Your task to perform on an android device: uninstall "NewsBreak: Local News & Alerts" Image 0: 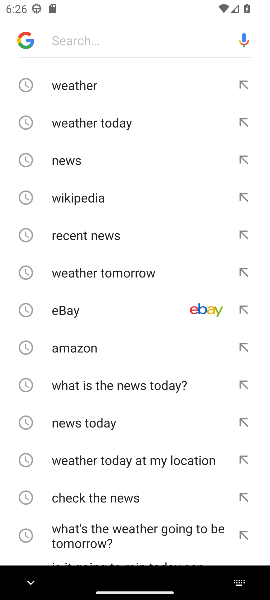
Step 0: press home button
Your task to perform on an android device: uninstall "NewsBreak: Local News & Alerts" Image 1: 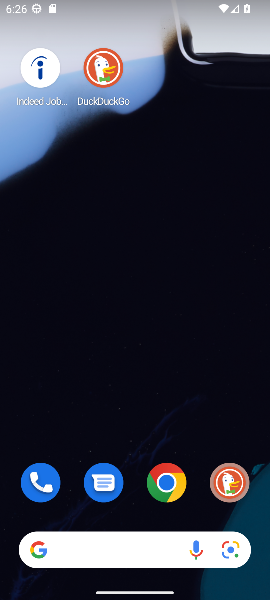
Step 1: drag from (174, 384) to (229, 6)
Your task to perform on an android device: uninstall "NewsBreak: Local News & Alerts" Image 2: 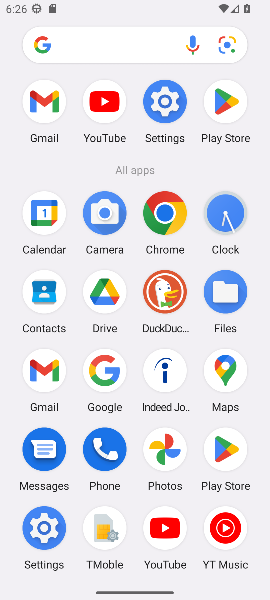
Step 2: click (228, 116)
Your task to perform on an android device: uninstall "NewsBreak: Local News & Alerts" Image 3: 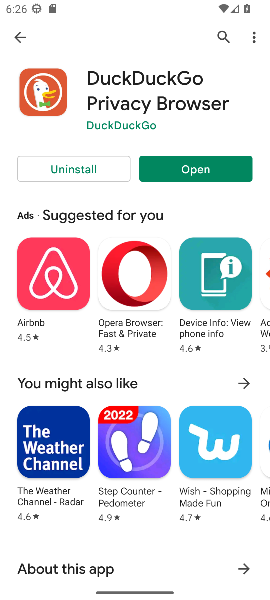
Step 3: click (222, 32)
Your task to perform on an android device: uninstall "NewsBreak: Local News & Alerts" Image 4: 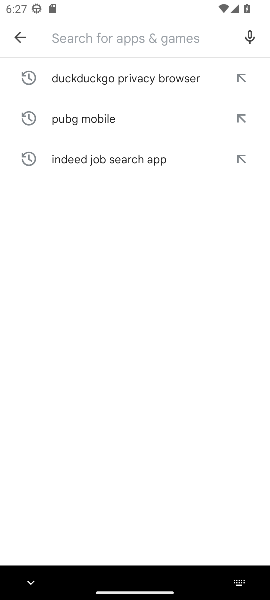
Step 4: type "newsbreak: local news & alerts"
Your task to perform on an android device: uninstall "NewsBreak: Local News & Alerts" Image 5: 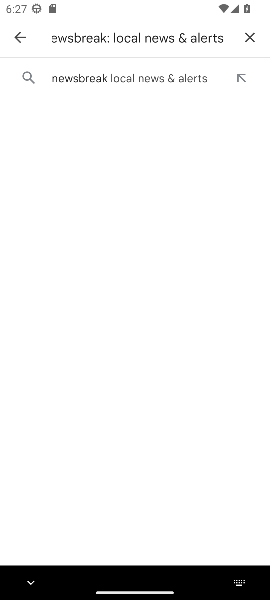
Step 5: click (79, 72)
Your task to perform on an android device: uninstall "NewsBreak: Local News & Alerts" Image 6: 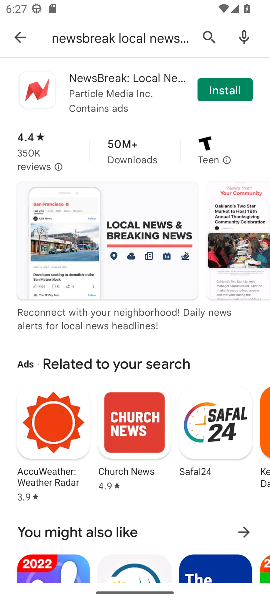
Step 6: click (95, 69)
Your task to perform on an android device: uninstall "NewsBreak: Local News & Alerts" Image 7: 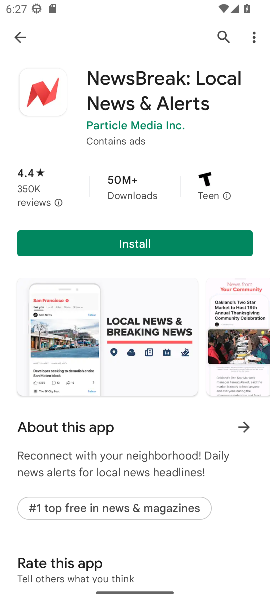
Step 7: task complete